Your task to perform on an android device: Search for vegetarian restaurants on Maps Image 0: 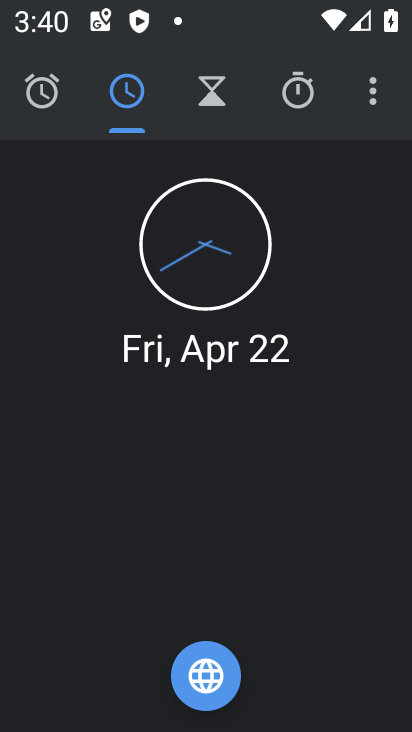
Step 0: press home button
Your task to perform on an android device: Search for vegetarian restaurants on Maps Image 1: 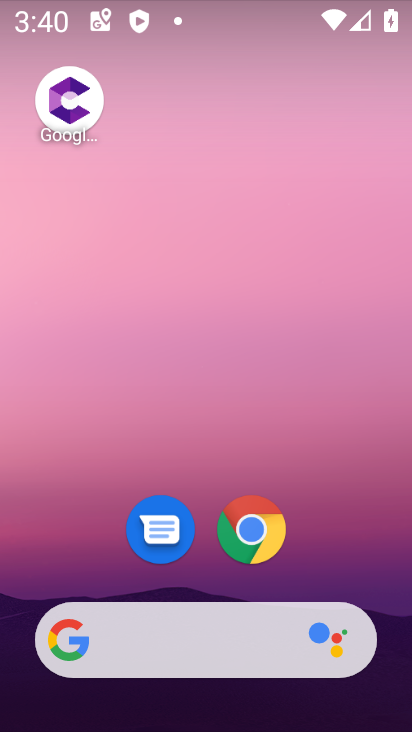
Step 1: drag from (331, 564) to (315, 113)
Your task to perform on an android device: Search for vegetarian restaurants on Maps Image 2: 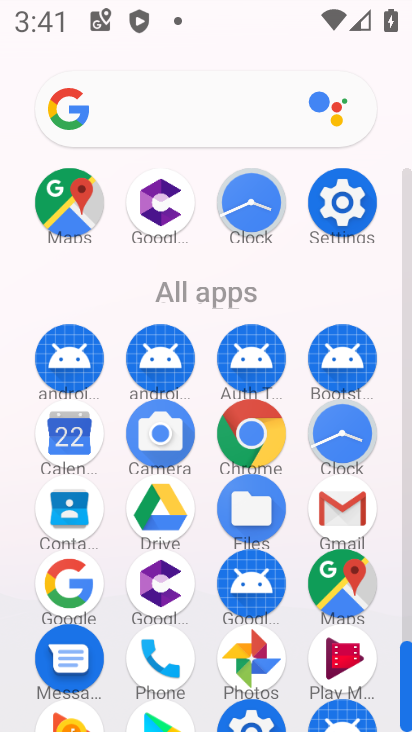
Step 2: click (79, 202)
Your task to perform on an android device: Search for vegetarian restaurants on Maps Image 3: 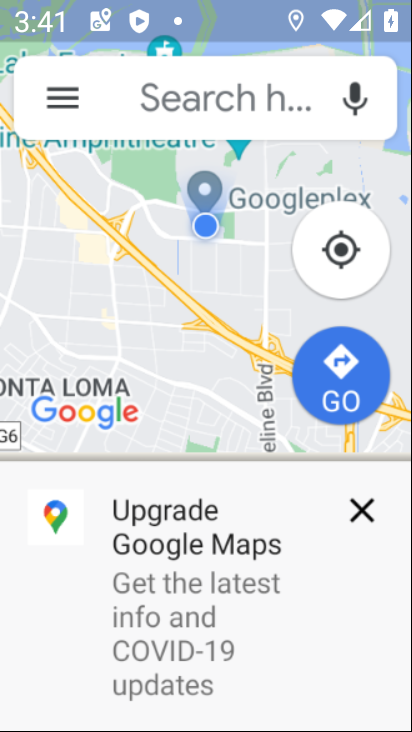
Step 3: click (178, 100)
Your task to perform on an android device: Search for vegetarian restaurants on Maps Image 4: 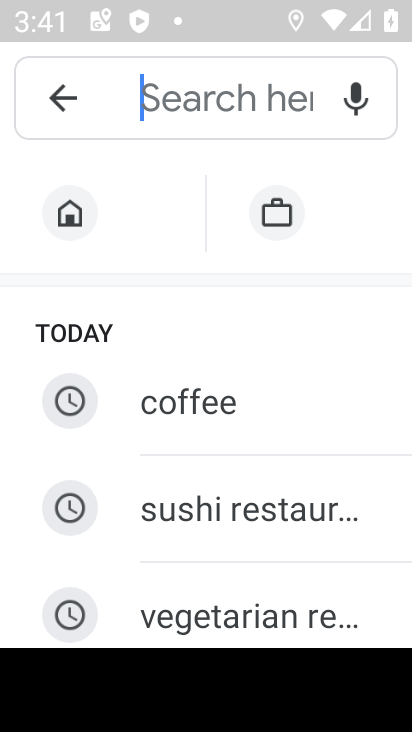
Step 4: type "vegetarian restaurants"
Your task to perform on an android device: Search for vegetarian restaurants on Maps Image 5: 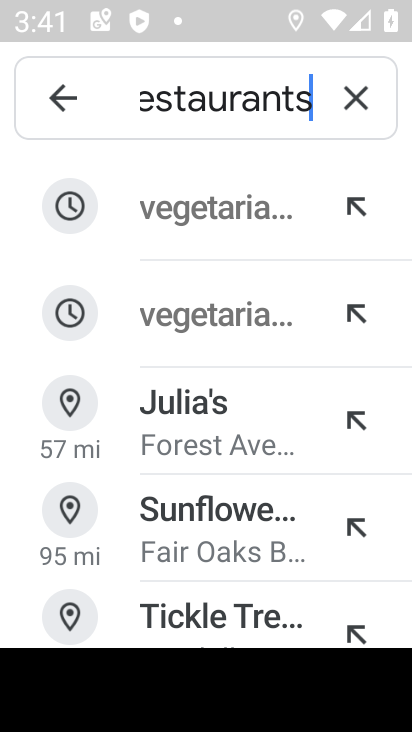
Step 5: click (253, 222)
Your task to perform on an android device: Search for vegetarian restaurants on Maps Image 6: 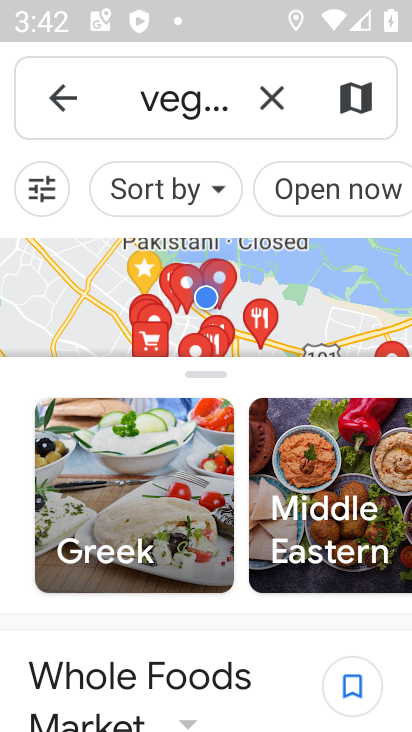
Step 6: task complete